Your task to perform on an android device: turn off wifi Image 0: 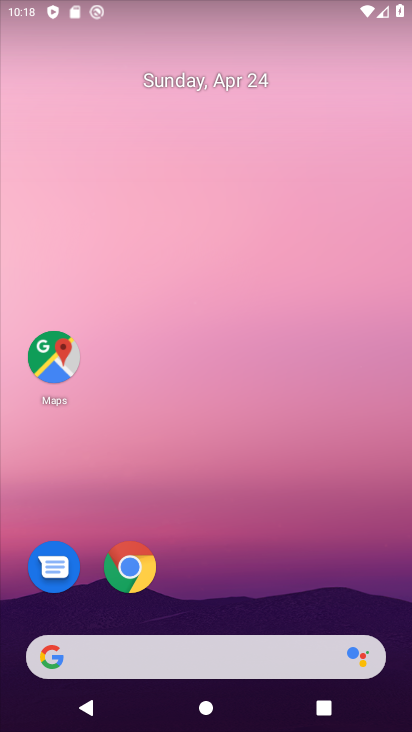
Step 0: drag from (215, 526) to (226, 236)
Your task to perform on an android device: turn off wifi Image 1: 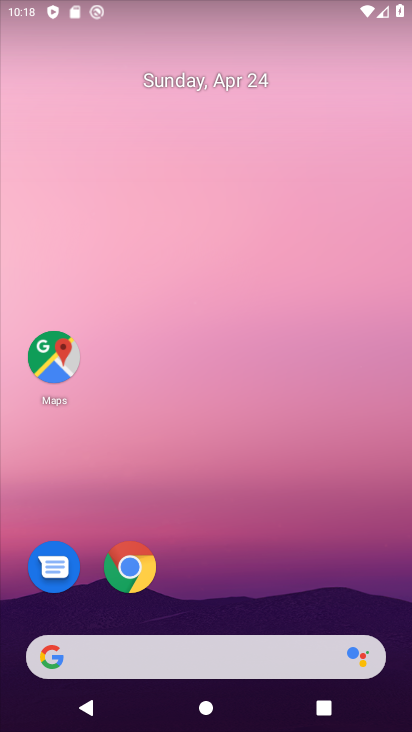
Step 1: drag from (359, 657) to (237, 147)
Your task to perform on an android device: turn off wifi Image 2: 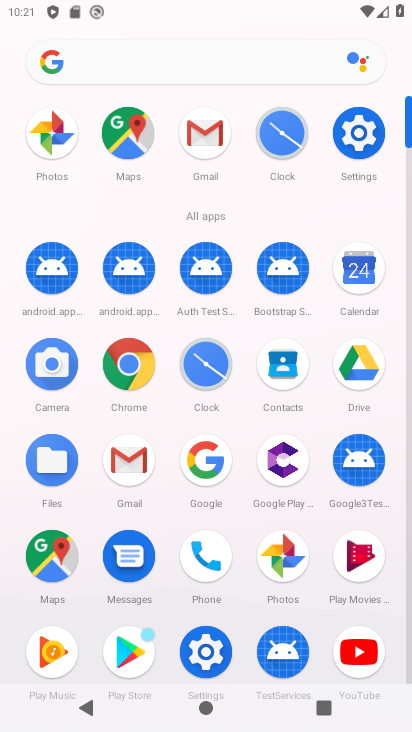
Step 2: click (217, 653)
Your task to perform on an android device: turn off wifi Image 3: 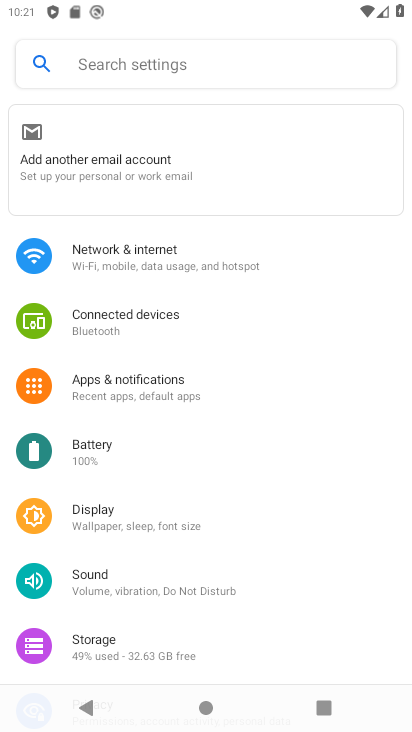
Step 3: click (178, 258)
Your task to perform on an android device: turn off wifi Image 4: 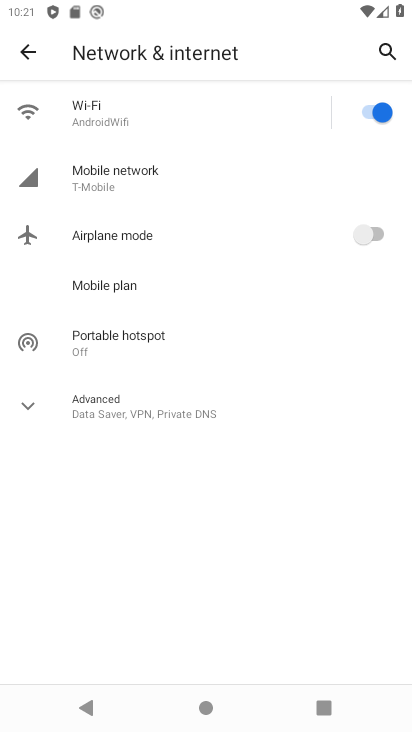
Step 4: click (156, 125)
Your task to perform on an android device: turn off wifi Image 5: 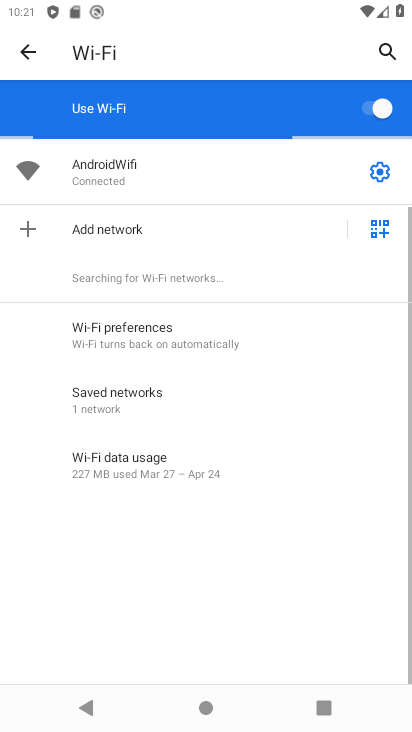
Step 5: task complete